Your task to perform on an android device: Search for Mexican restaurants on Maps Image 0: 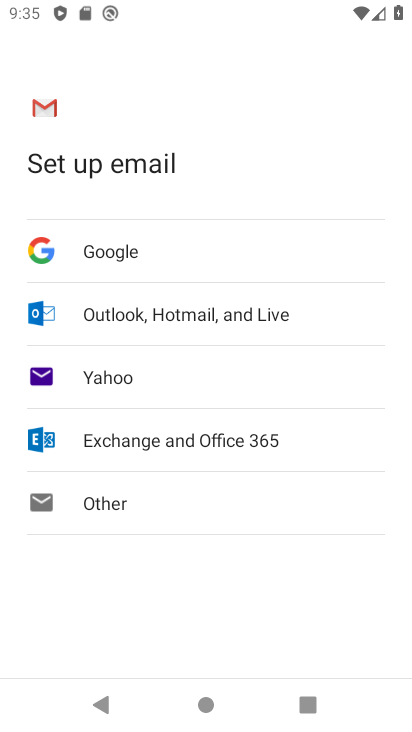
Step 0: press home button
Your task to perform on an android device: Search for Mexican restaurants on Maps Image 1: 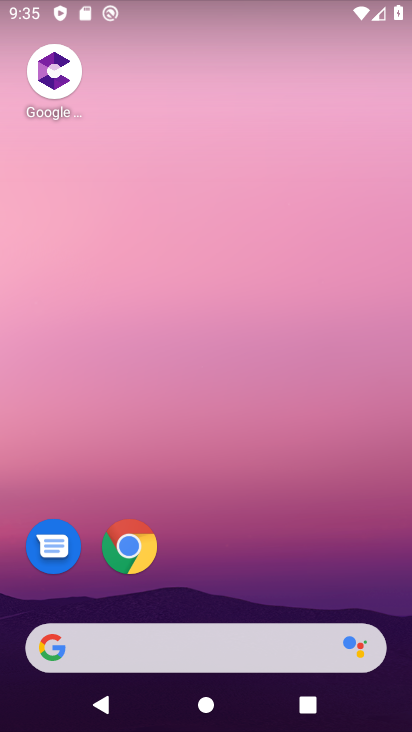
Step 1: drag from (225, 726) to (228, 71)
Your task to perform on an android device: Search for Mexican restaurants on Maps Image 2: 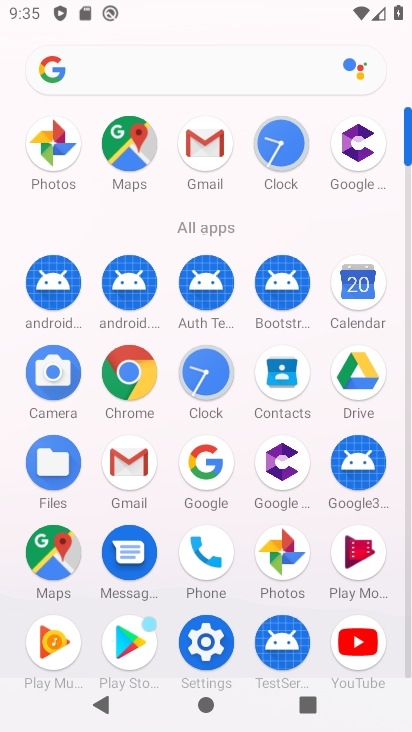
Step 2: click (52, 547)
Your task to perform on an android device: Search for Mexican restaurants on Maps Image 3: 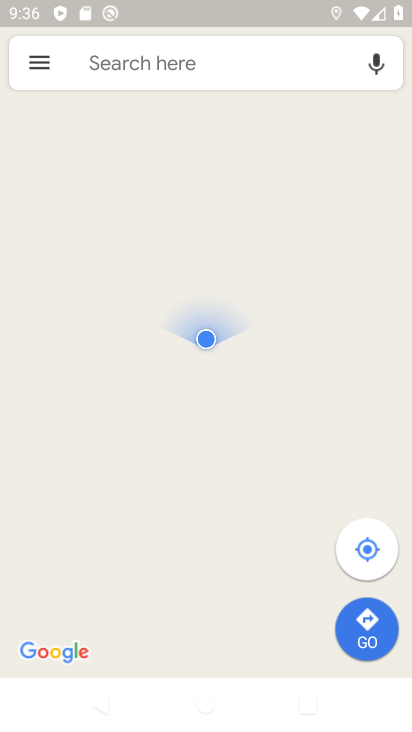
Step 3: click (183, 63)
Your task to perform on an android device: Search for Mexican restaurants on Maps Image 4: 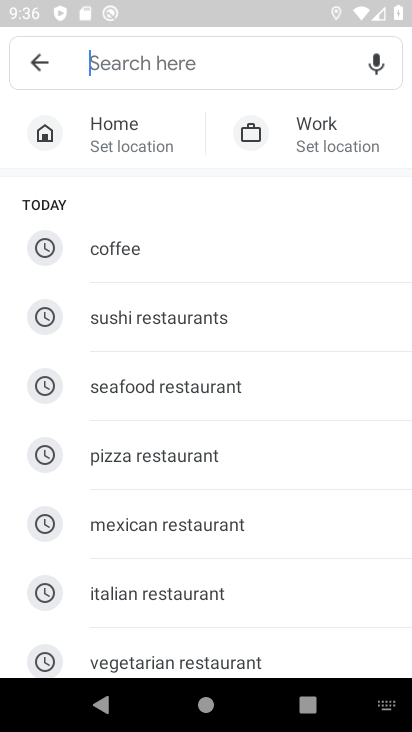
Step 4: type "Mexican restaurants"
Your task to perform on an android device: Search for Mexican restaurants on Maps Image 5: 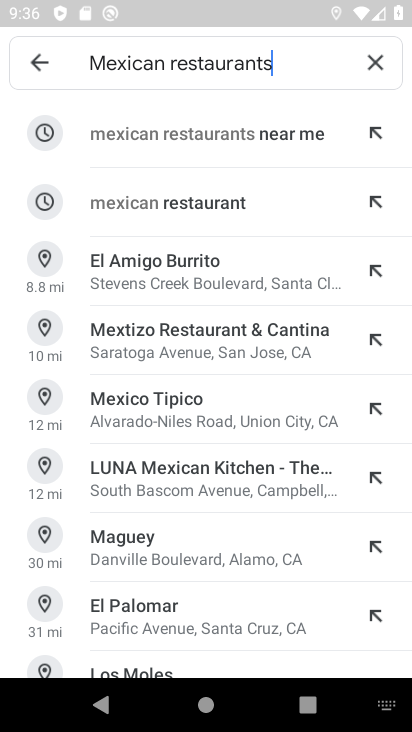
Step 5: click (154, 203)
Your task to perform on an android device: Search for Mexican restaurants on Maps Image 6: 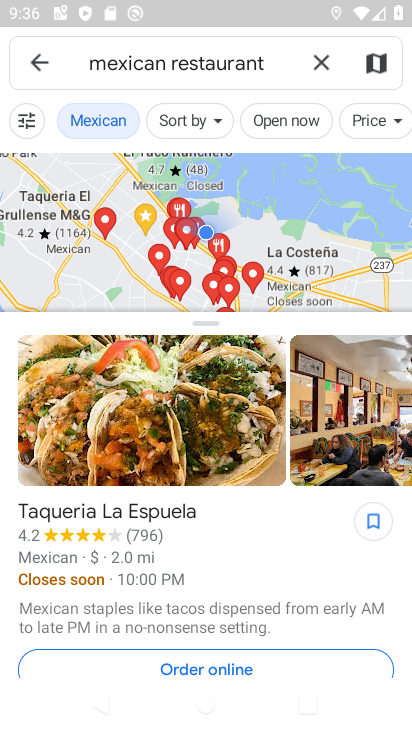
Step 6: task complete